Your task to perform on an android device: Open ESPN.com Image 0: 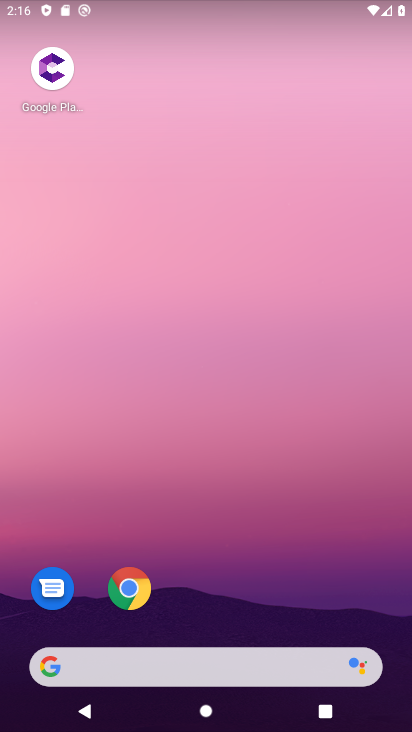
Step 0: click (125, 592)
Your task to perform on an android device: Open ESPN.com Image 1: 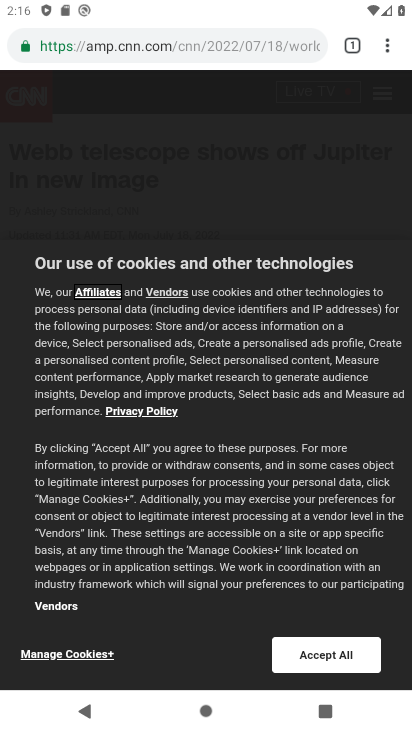
Step 1: click (248, 46)
Your task to perform on an android device: Open ESPN.com Image 2: 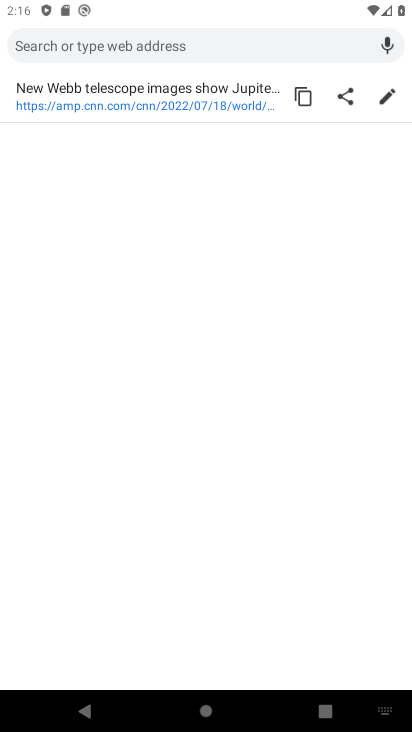
Step 2: type "www.espn.com"
Your task to perform on an android device: Open ESPN.com Image 3: 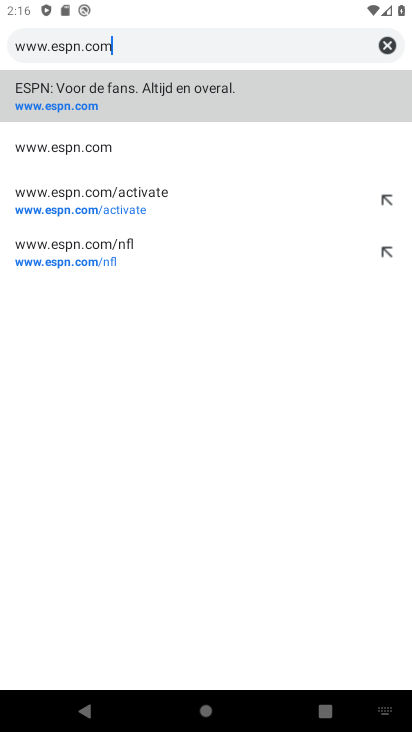
Step 3: click (46, 99)
Your task to perform on an android device: Open ESPN.com Image 4: 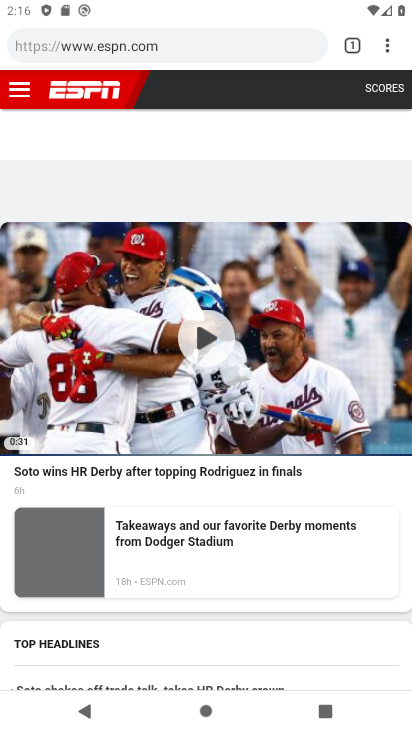
Step 4: task complete